Your task to perform on an android device: see creations saved in the google photos Image 0: 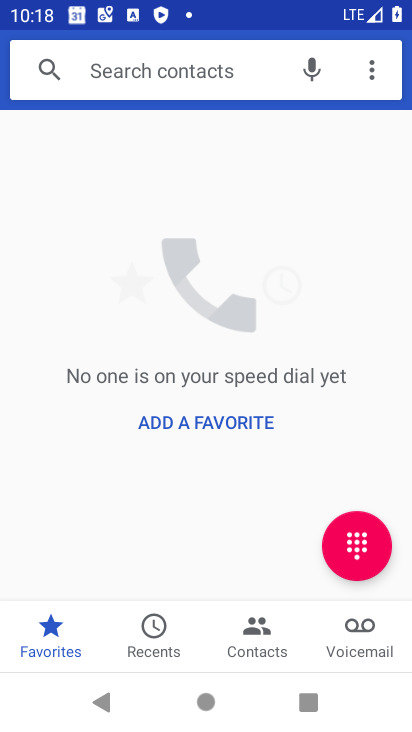
Step 0: press home button
Your task to perform on an android device: see creations saved in the google photos Image 1: 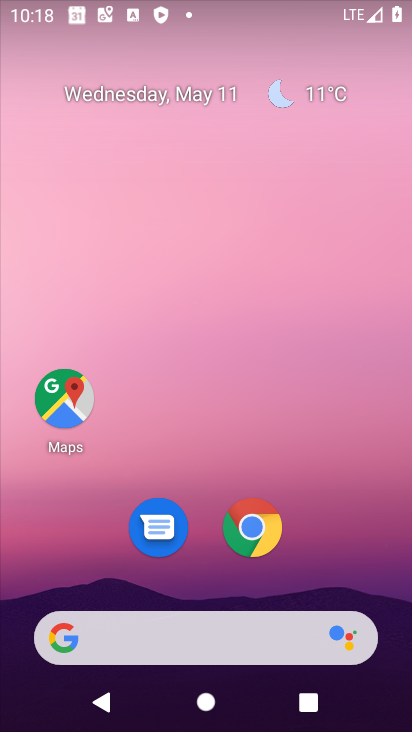
Step 1: drag from (356, 555) to (393, 133)
Your task to perform on an android device: see creations saved in the google photos Image 2: 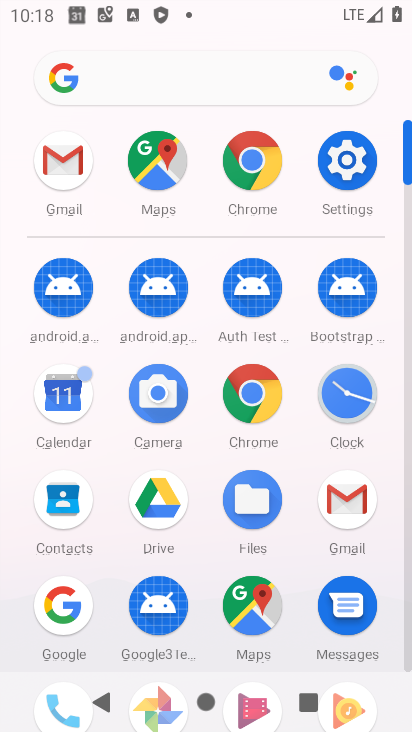
Step 2: click (263, 605)
Your task to perform on an android device: see creations saved in the google photos Image 3: 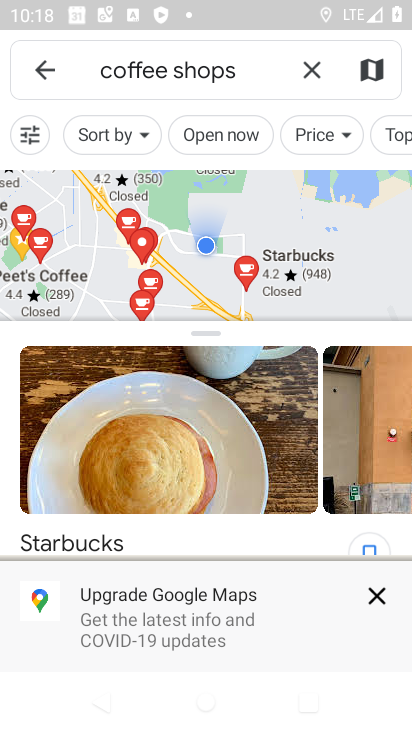
Step 3: press home button
Your task to perform on an android device: see creations saved in the google photos Image 4: 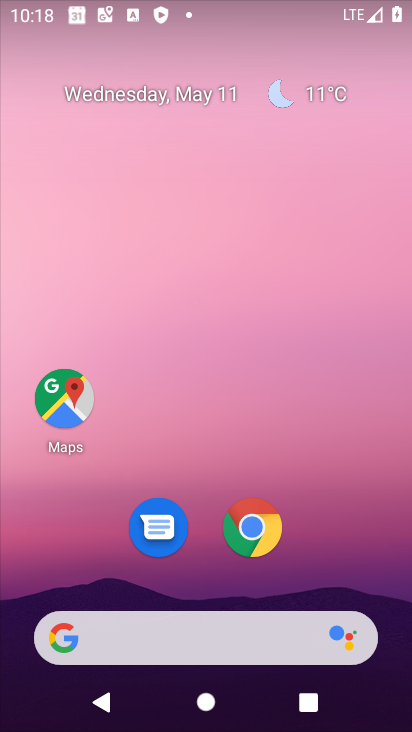
Step 4: drag from (354, 484) to (333, 95)
Your task to perform on an android device: see creations saved in the google photos Image 5: 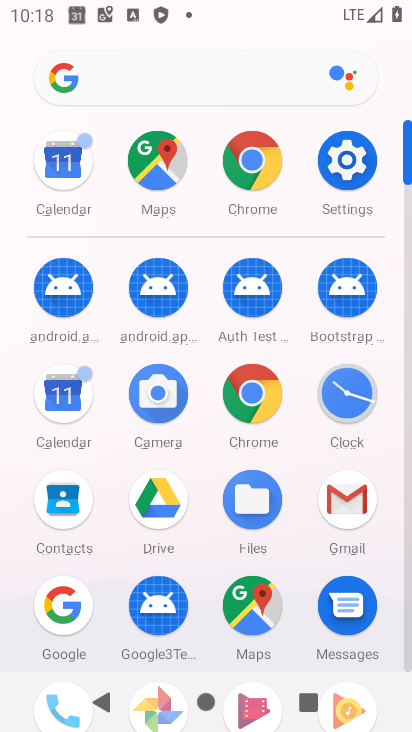
Step 5: drag from (405, 597) to (407, 274)
Your task to perform on an android device: see creations saved in the google photos Image 6: 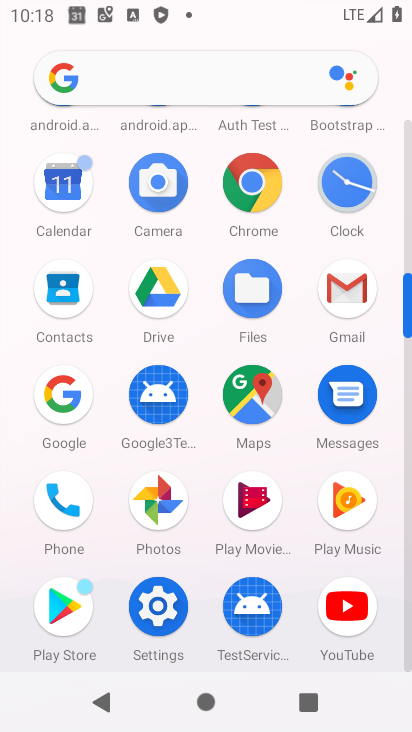
Step 6: click (159, 512)
Your task to perform on an android device: see creations saved in the google photos Image 7: 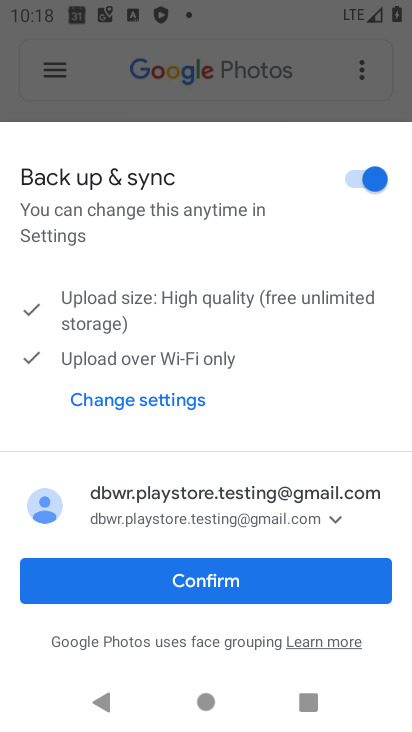
Step 7: click (217, 581)
Your task to perform on an android device: see creations saved in the google photos Image 8: 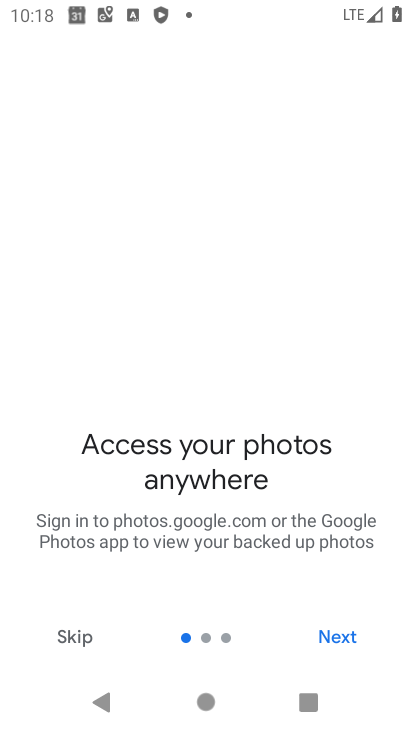
Step 8: click (358, 635)
Your task to perform on an android device: see creations saved in the google photos Image 9: 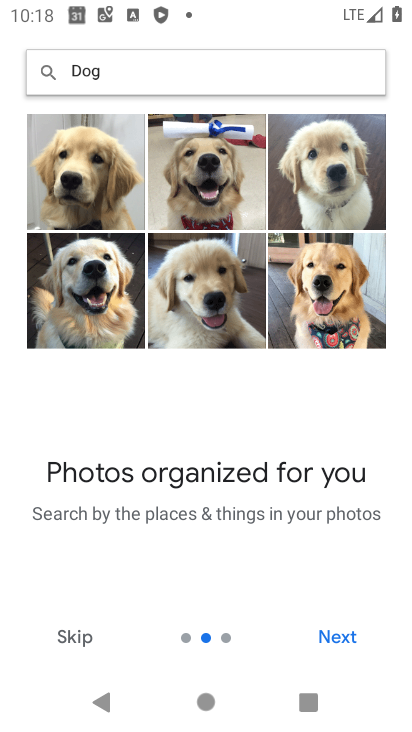
Step 9: click (357, 636)
Your task to perform on an android device: see creations saved in the google photos Image 10: 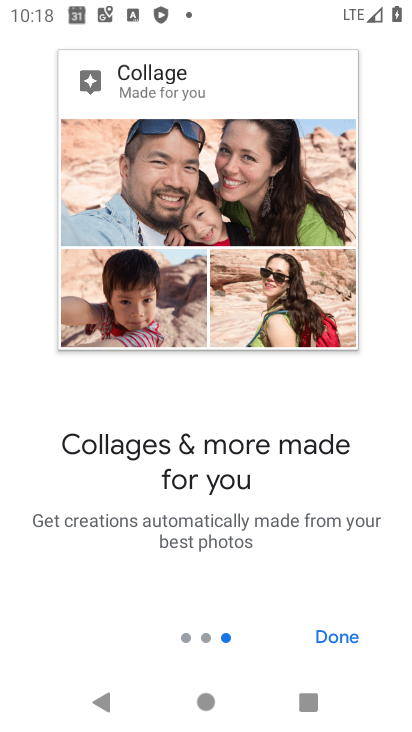
Step 10: click (343, 644)
Your task to perform on an android device: see creations saved in the google photos Image 11: 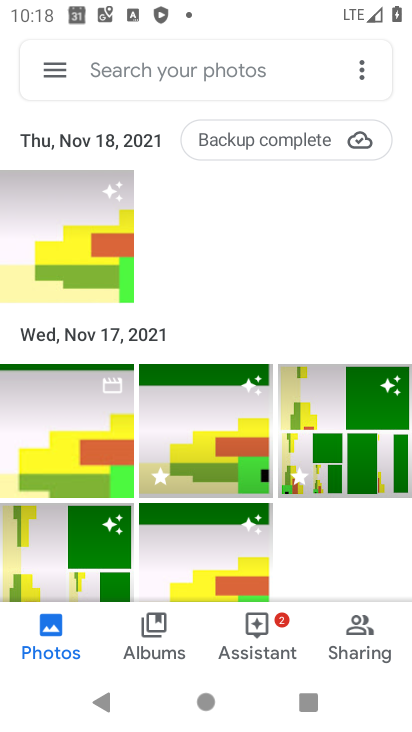
Step 11: click (160, 632)
Your task to perform on an android device: see creations saved in the google photos Image 12: 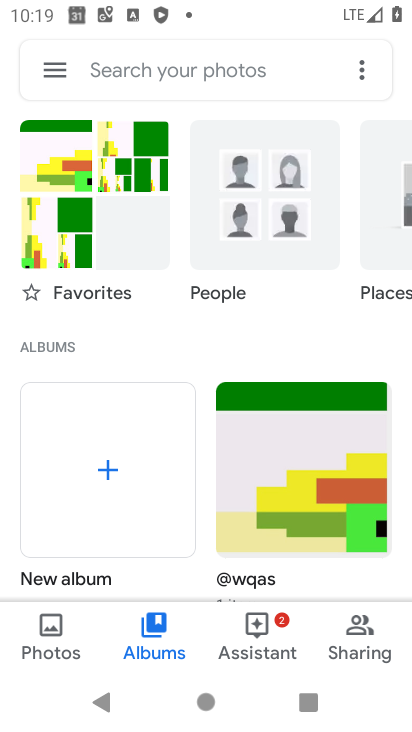
Step 12: drag from (368, 585) to (315, 143)
Your task to perform on an android device: see creations saved in the google photos Image 13: 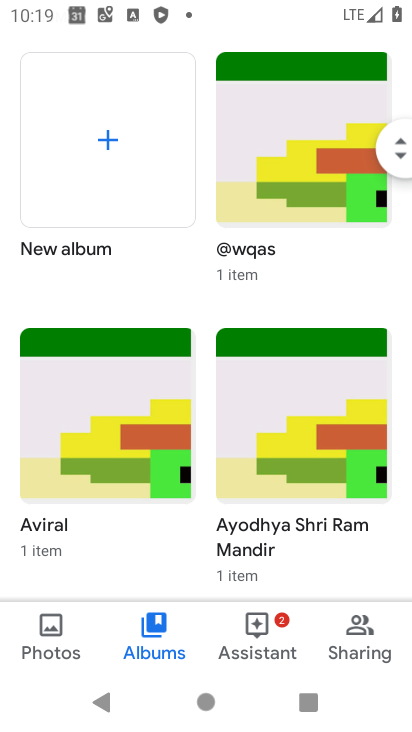
Step 13: drag from (359, 548) to (363, 63)
Your task to perform on an android device: see creations saved in the google photos Image 14: 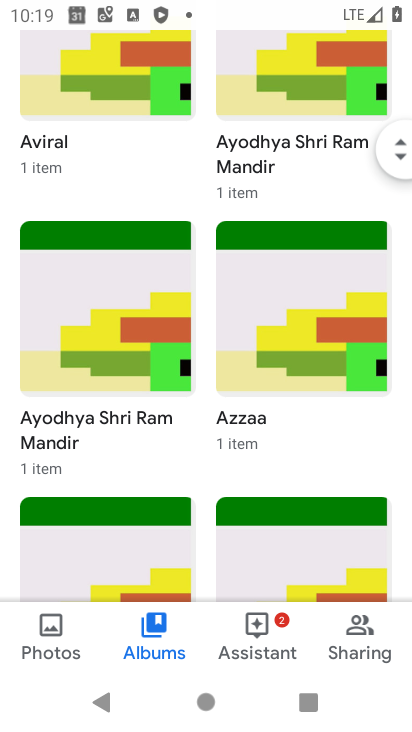
Step 14: drag from (341, 160) to (358, 502)
Your task to perform on an android device: see creations saved in the google photos Image 15: 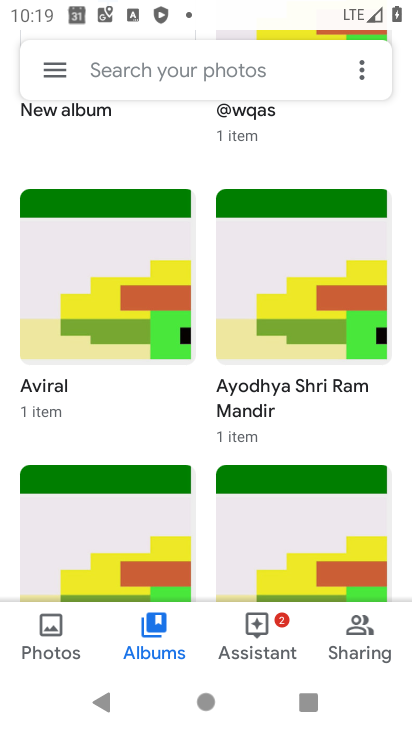
Step 15: drag from (279, 230) to (306, 686)
Your task to perform on an android device: see creations saved in the google photos Image 16: 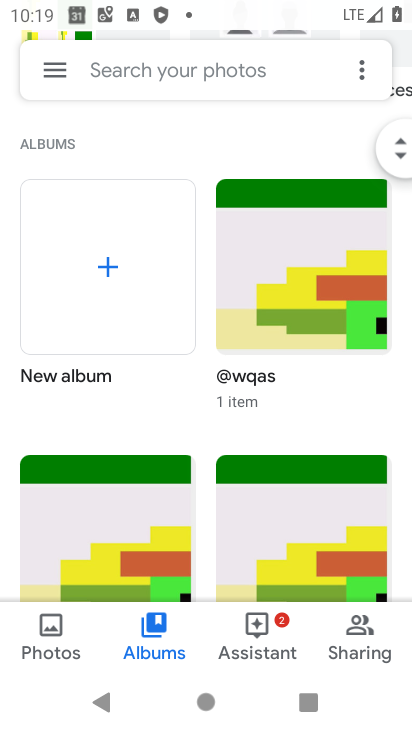
Step 16: click (99, 281)
Your task to perform on an android device: see creations saved in the google photos Image 17: 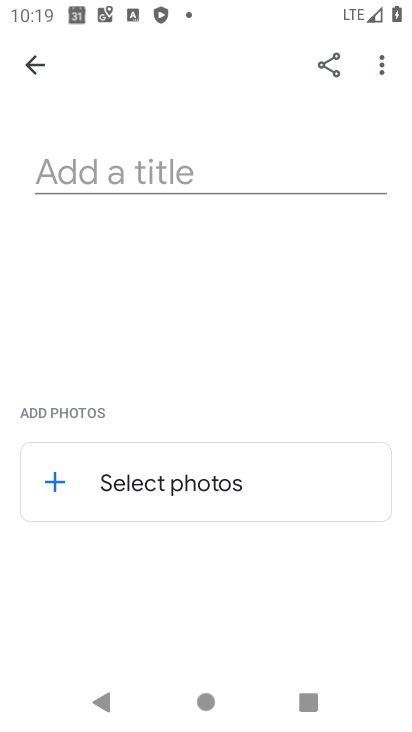
Step 17: click (218, 159)
Your task to perform on an android device: see creations saved in the google photos Image 18: 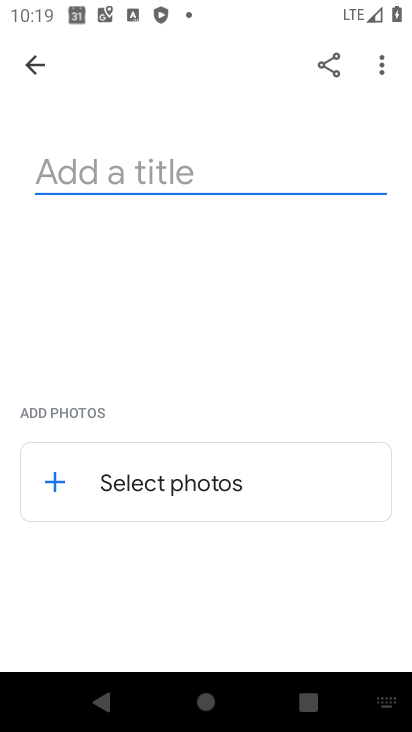
Step 18: type "taya"
Your task to perform on an android device: see creations saved in the google photos Image 19: 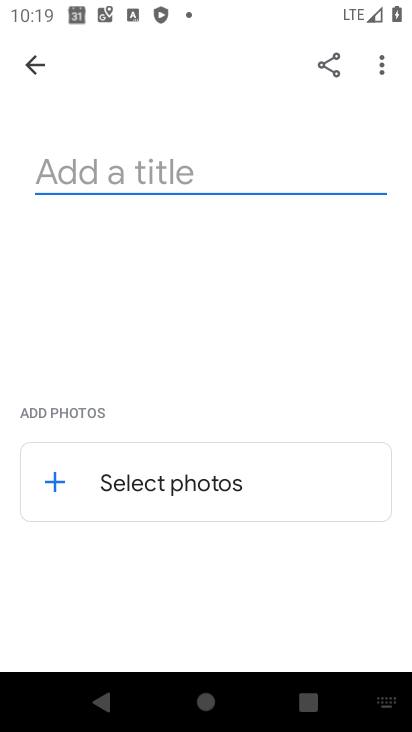
Step 19: click (167, 469)
Your task to perform on an android device: see creations saved in the google photos Image 20: 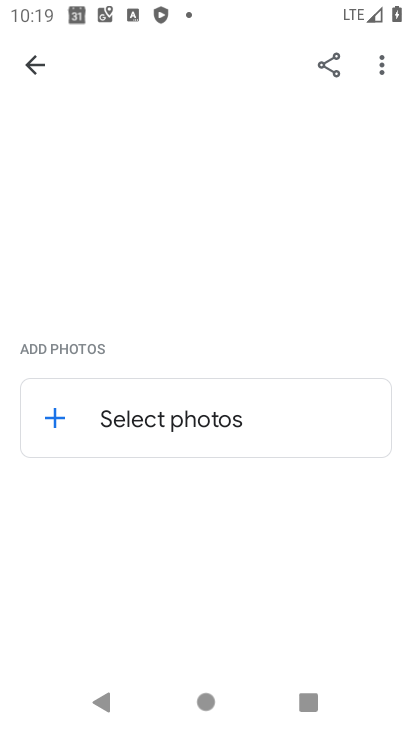
Step 20: click (163, 439)
Your task to perform on an android device: see creations saved in the google photos Image 21: 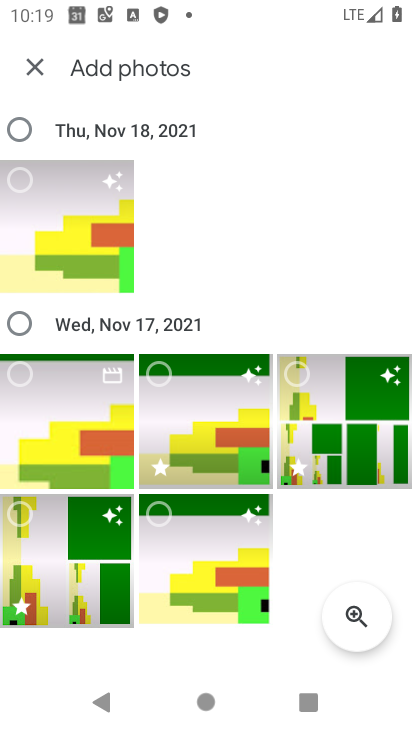
Step 21: click (16, 334)
Your task to perform on an android device: see creations saved in the google photos Image 22: 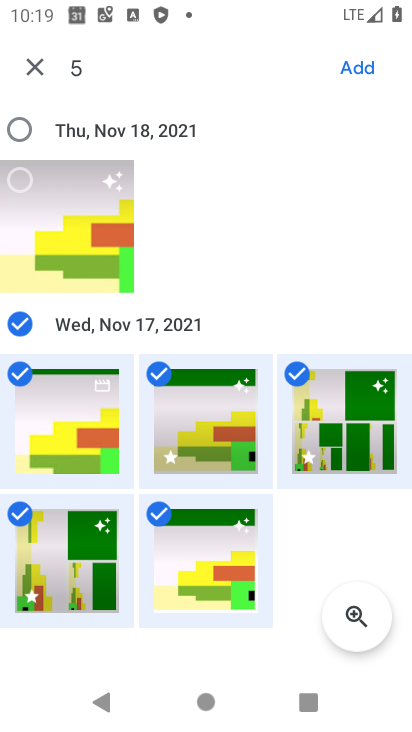
Step 22: click (22, 381)
Your task to perform on an android device: see creations saved in the google photos Image 23: 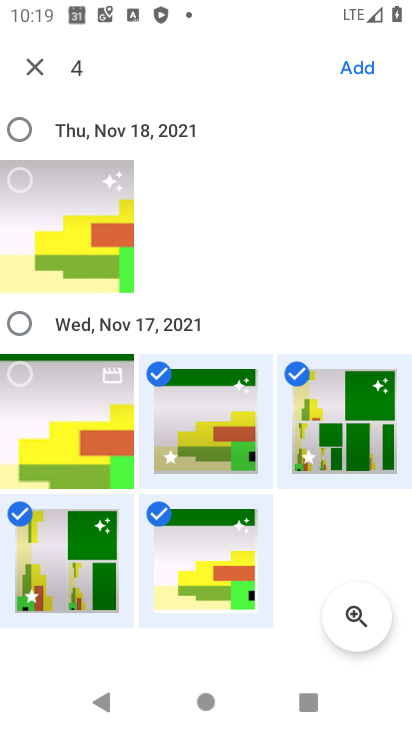
Step 23: click (352, 42)
Your task to perform on an android device: see creations saved in the google photos Image 24: 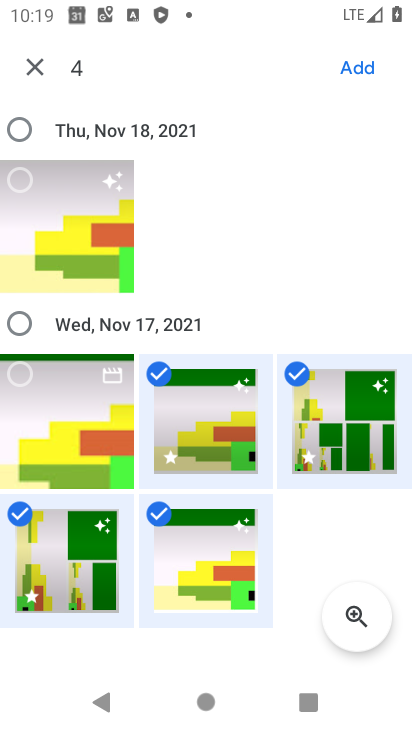
Step 24: click (352, 57)
Your task to perform on an android device: see creations saved in the google photos Image 25: 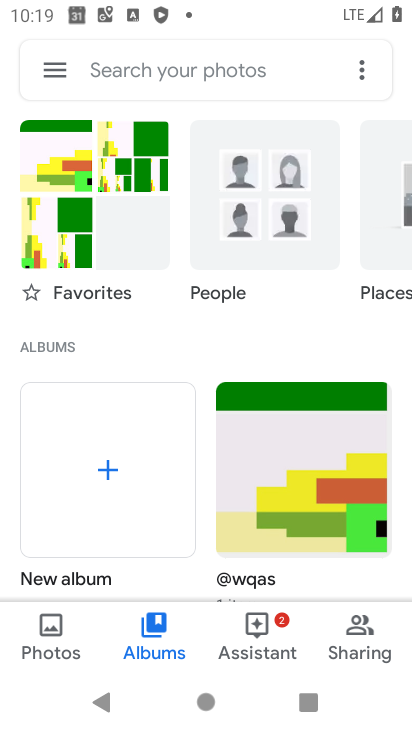
Step 25: task complete